Your task to perform on an android device: Open Android settings Image 0: 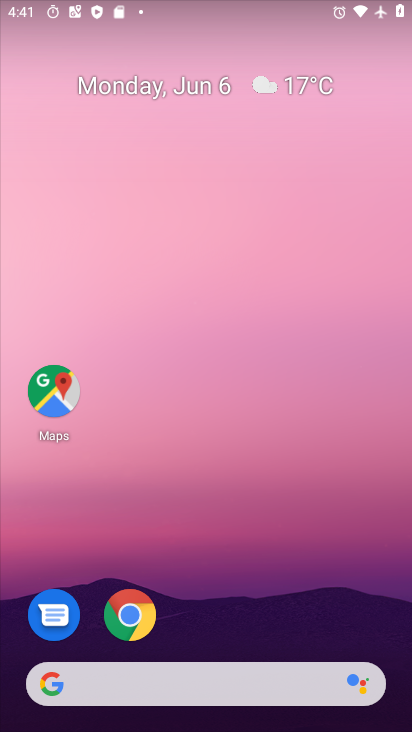
Step 0: drag from (286, 590) to (247, 42)
Your task to perform on an android device: Open Android settings Image 1: 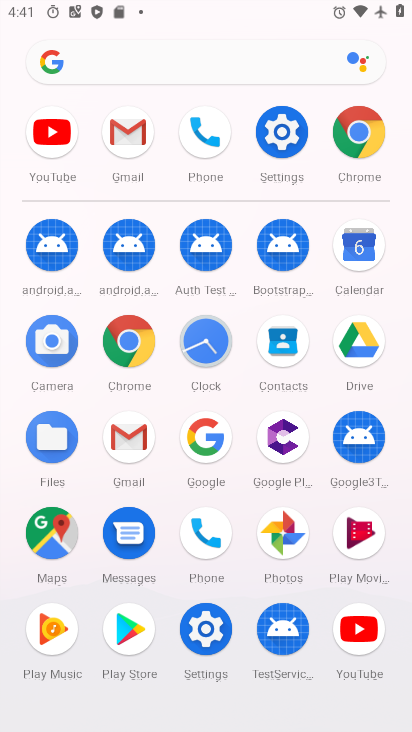
Step 1: drag from (6, 641) to (10, 310)
Your task to perform on an android device: Open Android settings Image 2: 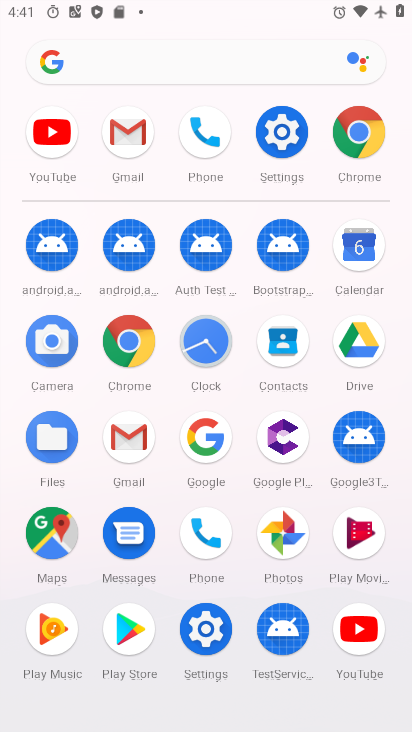
Step 2: click (206, 621)
Your task to perform on an android device: Open Android settings Image 3: 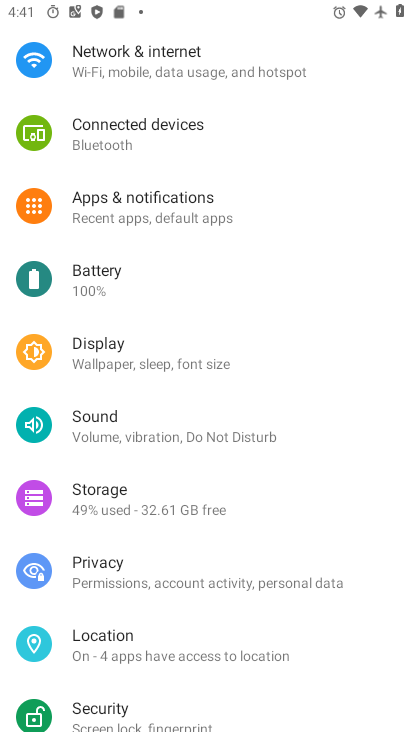
Step 3: task complete